Your task to perform on an android device: open wifi settings Image 0: 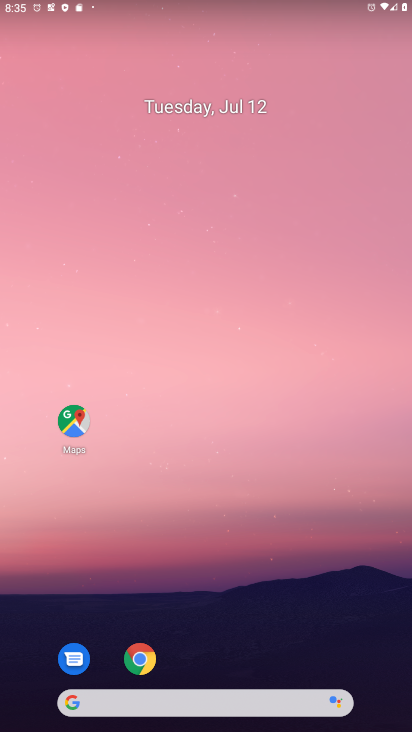
Step 0: drag from (238, 695) to (236, 180)
Your task to perform on an android device: open wifi settings Image 1: 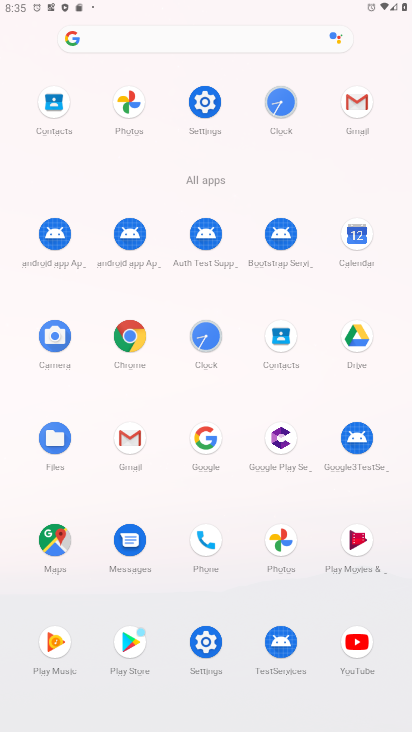
Step 1: click (204, 100)
Your task to perform on an android device: open wifi settings Image 2: 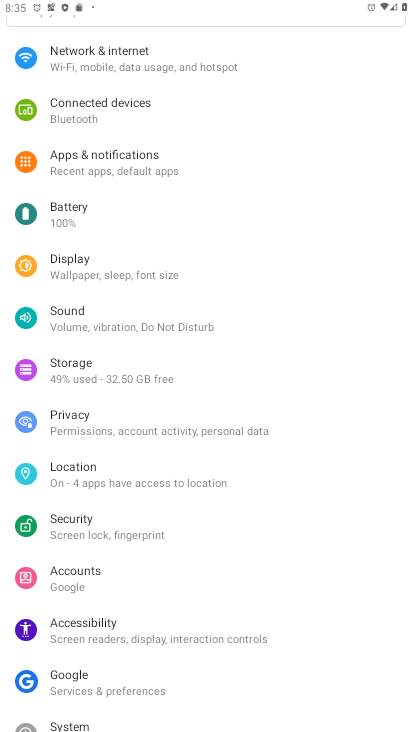
Step 2: click (174, 66)
Your task to perform on an android device: open wifi settings Image 3: 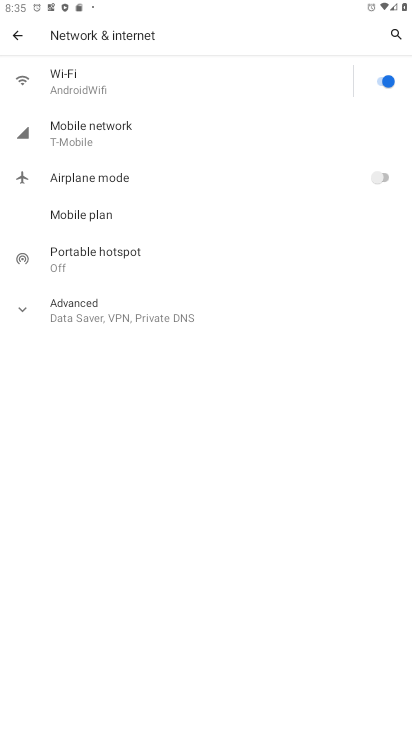
Step 3: click (99, 91)
Your task to perform on an android device: open wifi settings Image 4: 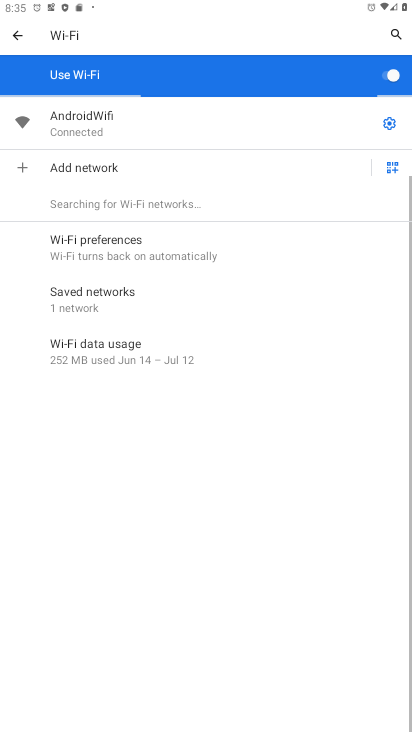
Step 4: click (390, 127)
Your task to perform on an android device: open wifi settings Image 5: 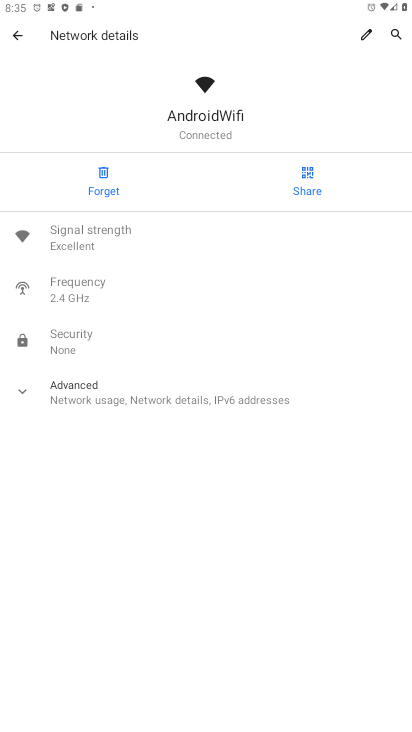
Step 5: task complete